Your task to perform on an android device: install app "The Home Depot" Image 0: 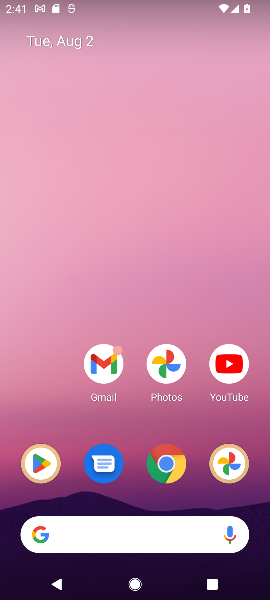
Step 0: press home button
Your task to perform on an android device: install app "The Home Depot" Image 1: 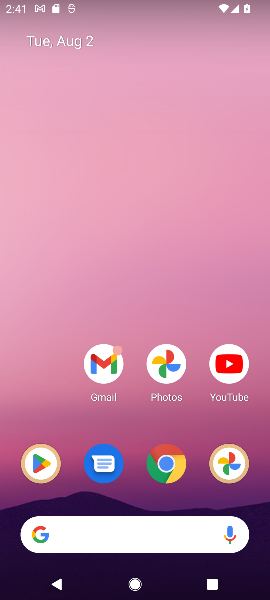
Step 1: click (40, 468)
Your task to perform on an android device: install app "The Home Depot" Image 2: 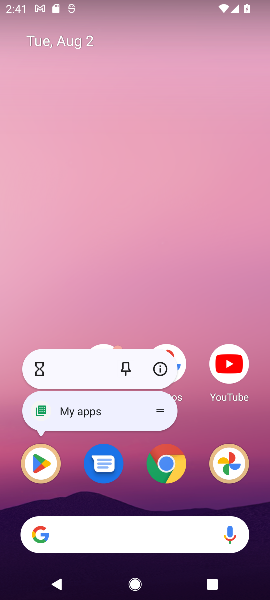
Step 2: click (40, 468)
Your task to perform on an android device: install app "The Home Depot" Image 3: 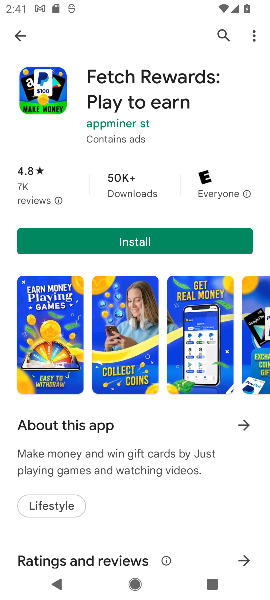
Step 3: click (221, 31)
Your task to perform on an android device: install app "The Home Depot" Image 4: 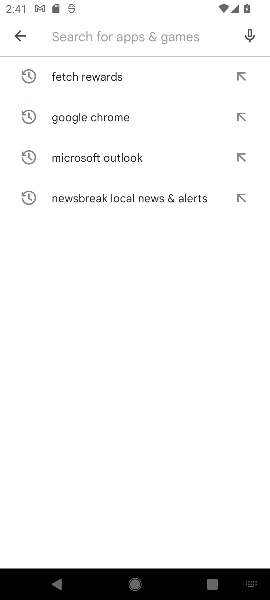
Step 4: type "The Home Depot"
Your task to perform on an android device: install app "The Home Depot" Image 5: 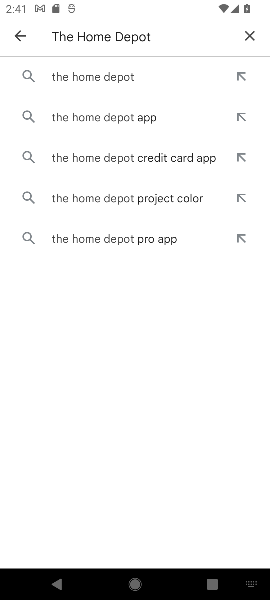
Step 5: click (110, 72)
Your task to perform on an android device: install app "The Home Depot" Image 6: 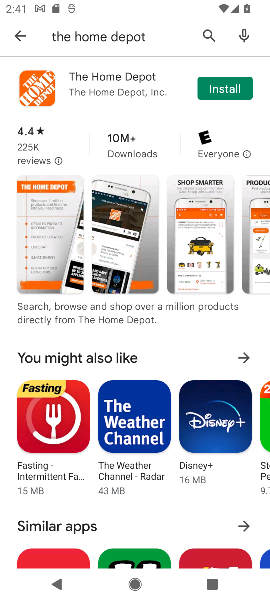
Step 6: click (228, 88)
Your task to perform on an android device: install app "The Home Depot" Image 7: 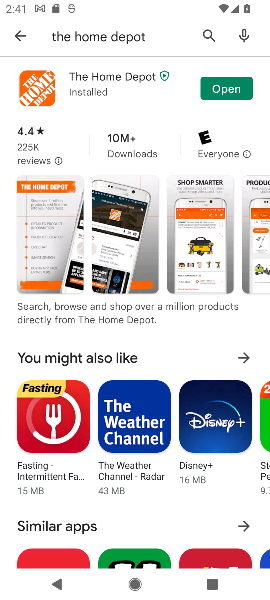
Step 7: task complete